Your task to perform on an android device: Go to wifi settings Image 0: 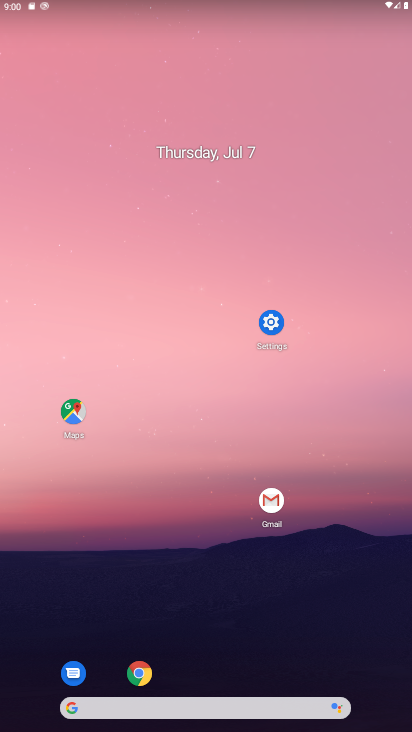
Step 0: click (284, 324)
Your task to perform on an android device: Go to wifi settings Image 1: 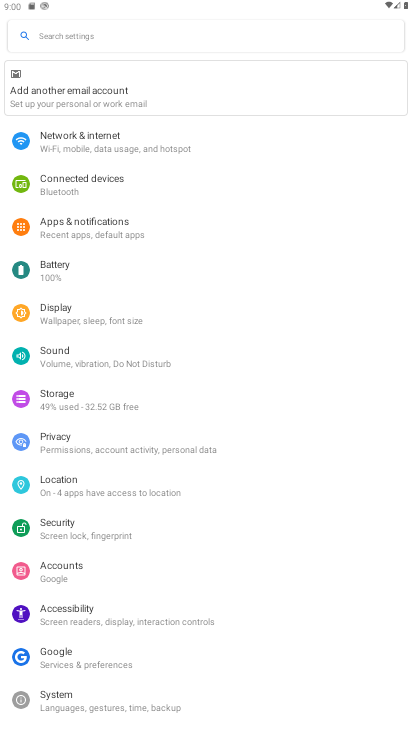
Step 1: click (92, 143)
Your task to perform on an android device: Go to wifi settings Image 2: 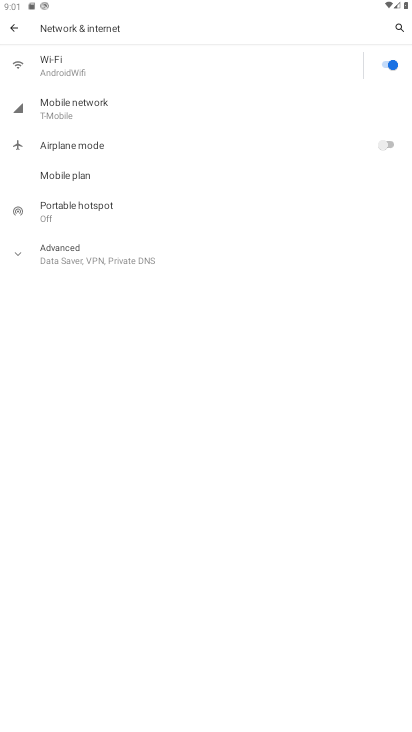
Step 2: click (155, 69)
Your task to perform on an android device: Go to wifi settings Image 3: 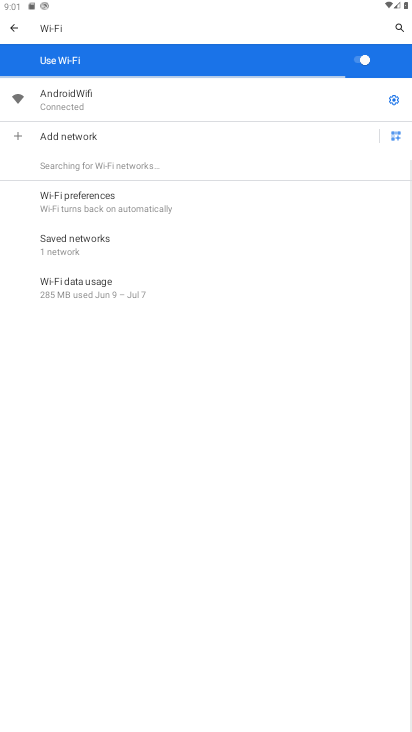
Step 3: click (388, 97)
Your task to perform on an android device: Go to wifi settings Image 4: 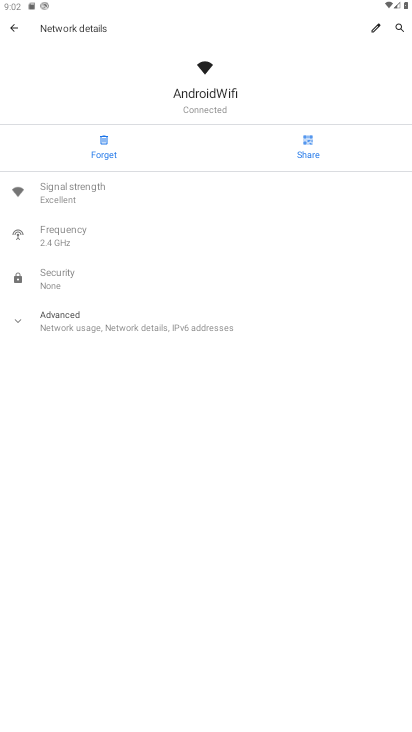
Step 4: task complete